Your task to perform on an android device: open sync settings in chrome Image 0: 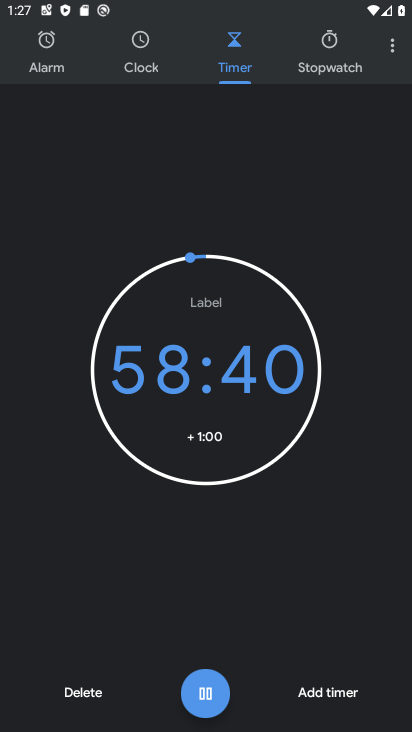
Step 0: press home button
Your task to perform on an android device: open sync settings in chrome Image 1: 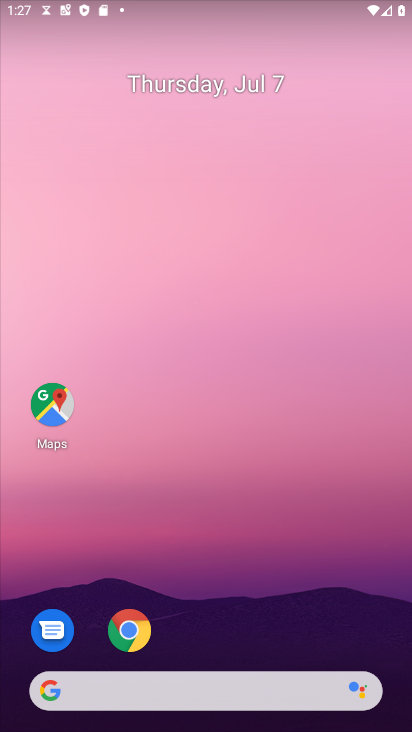
Step 1: click (135, 621)
Your task to perform on an android device: open sync settings in chrome Image 2: 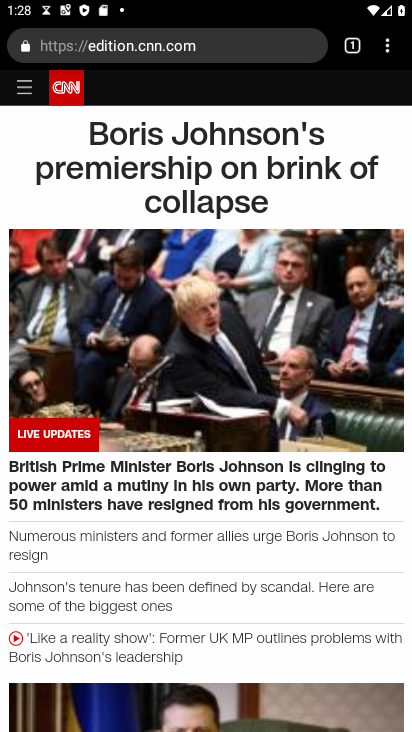
Step 2: click (383, 42)
Your task to perform on an android device: open sync settings in chrome Image 3: 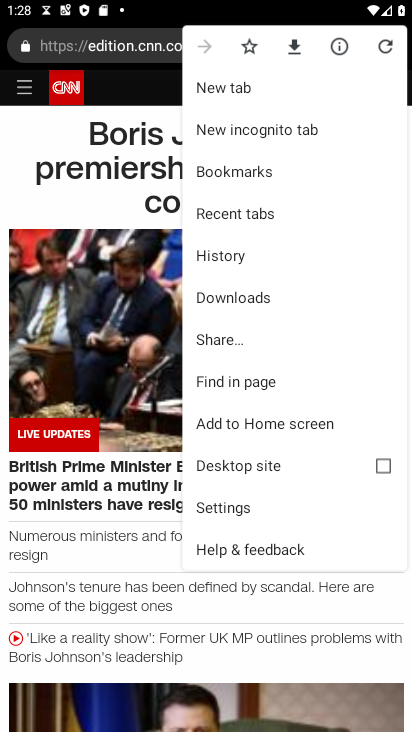
Step 3: click (265, 507)
Your task to perform on an android device: open sync settings in chrome Image 4: 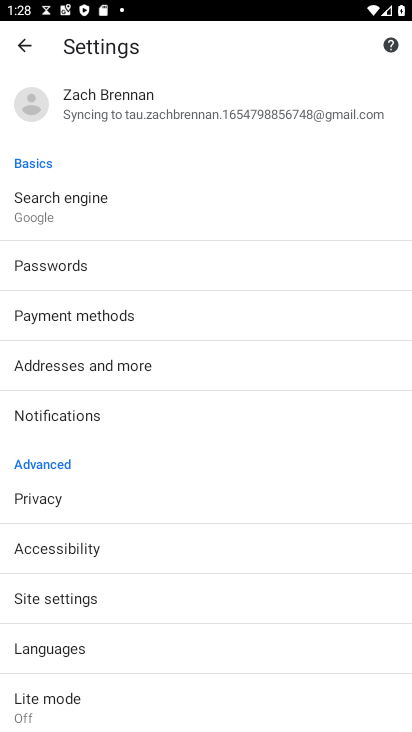
Step 4: click (217, 103)
Your task to perform on an android device: open sync settings in chrome Image 5: 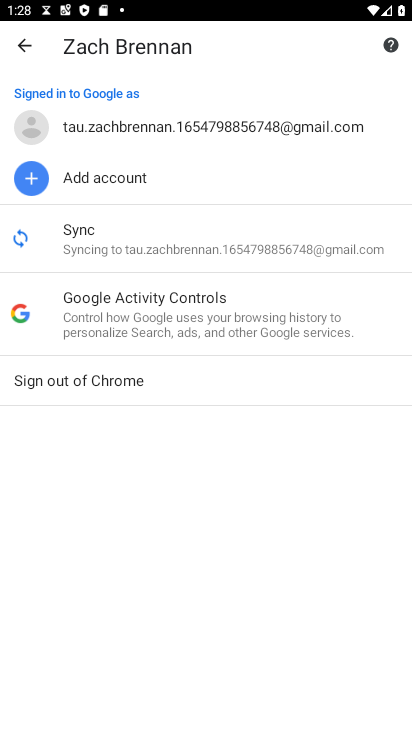
Step 5: click (229, 238)
Your task to perform on an android device: open sync settings in chrome Image 6: 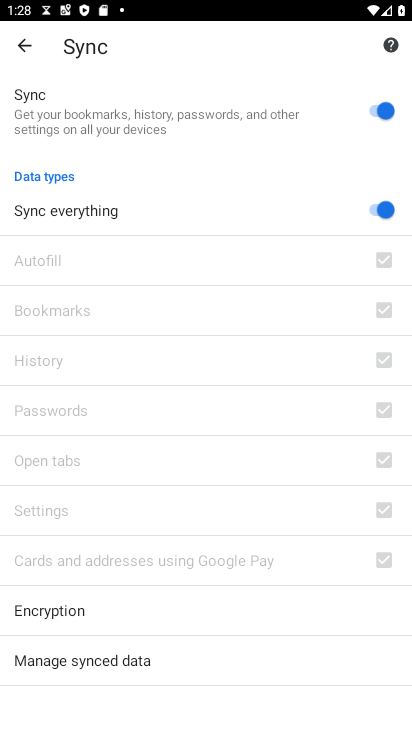
Step 6: task complete